Your task to perform on an android device: read, delete, or share a saved page in the chrome app Image 0: 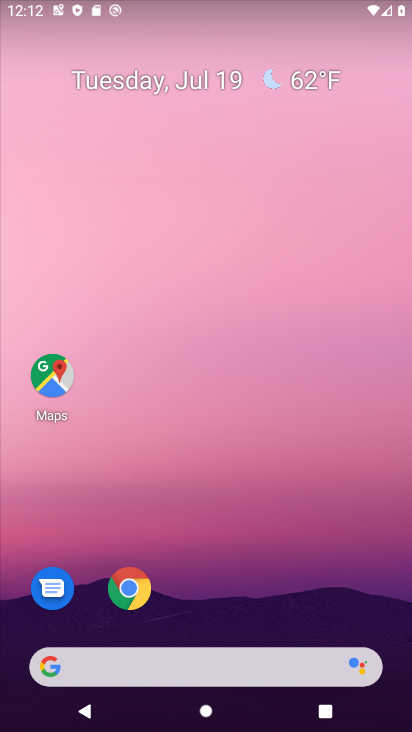
Step 0: click (121, 590)
Your task to perform on an android device: read, delete, or share a saved page in the chrome app Image 1: 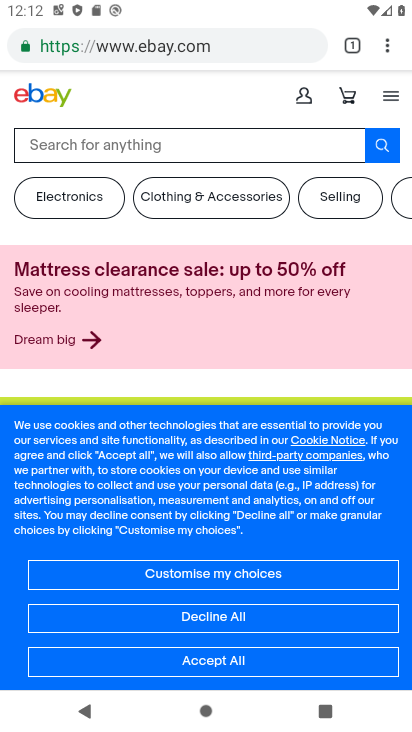
Step 1: click (394, 47)
Your task to perform on an android device: read, delete, or share a saved page in the chrome app Image 2: 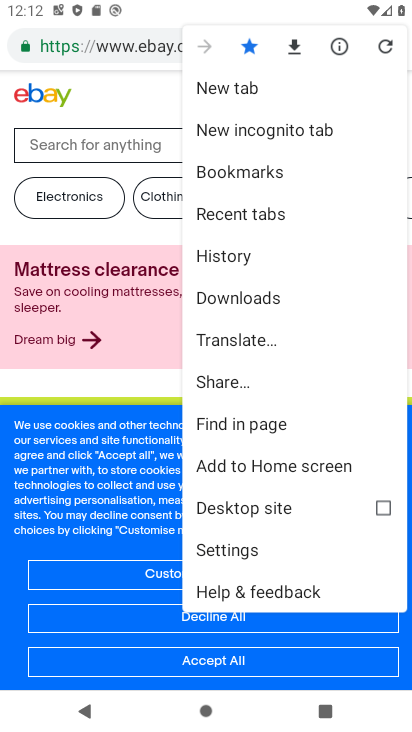
Step 2: click (251, 299)
Your task to perform on an android device: read, delete, or share a saved page in the chrome app Image 3: 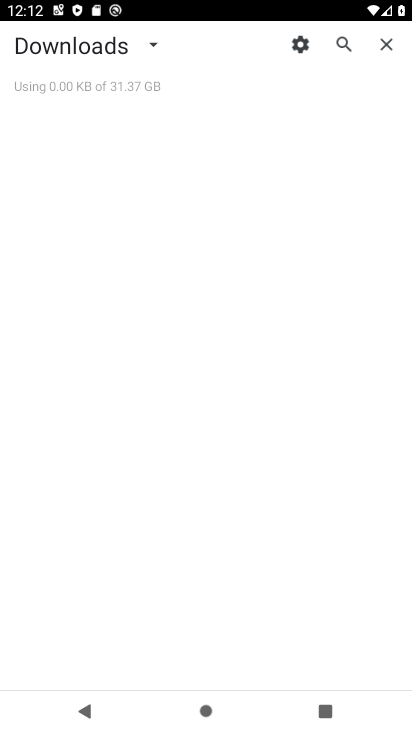
Step 3: click (152, 49)
Your task to perform on an android device: read, delete, or share a saved page in the chrome app Image 4: 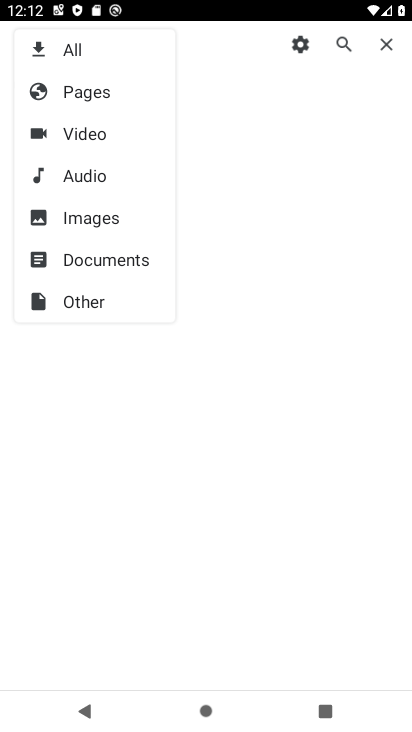
Step 4: click (73, 99)
Your task to perform on an android device: read, delete, or share a saved page in the chrome app Image 5: 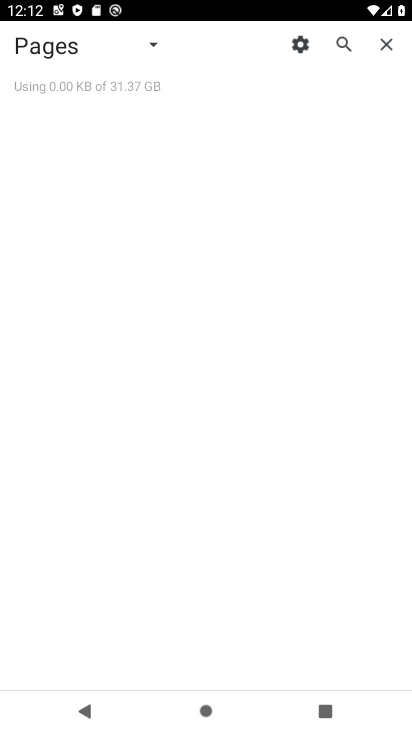
Step 5: task complete